Your task to perform on an android device: Open Android settings Image 0: 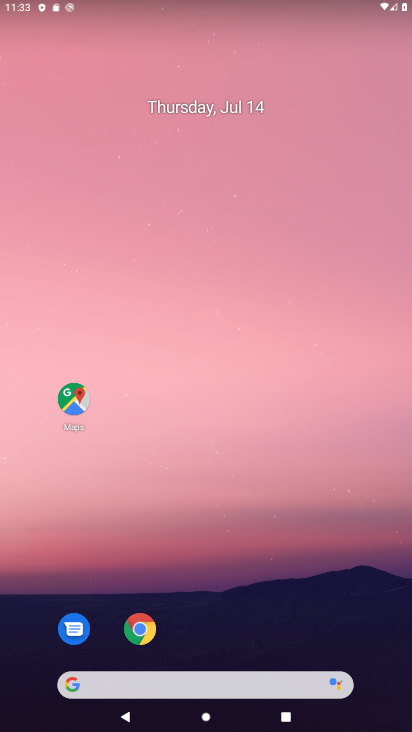
Step 0: drag from (291, 529) to (229, 107)
Your task to perform on an android device: Open Android settings Image 1: 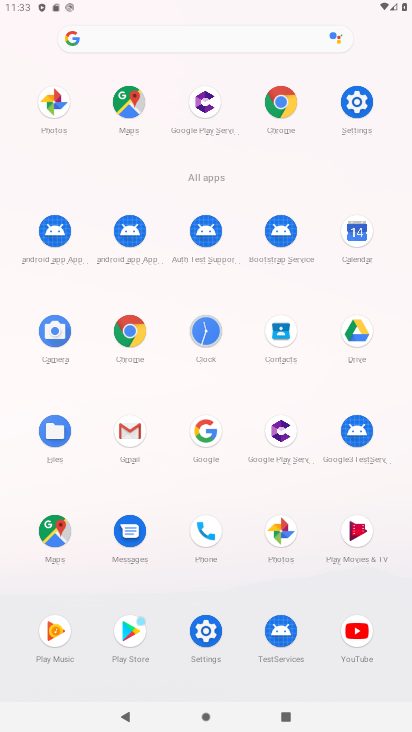
Step 1: click (355, 102)
Your task to perform on an android device: Open Android settings Image 2: 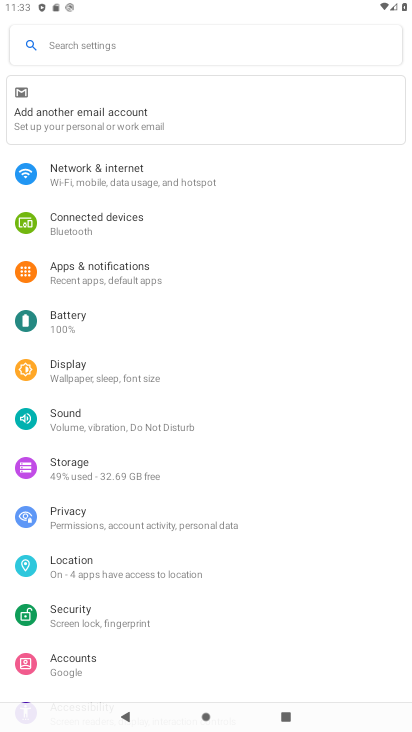
Step 2: task complete